Your task to perform on an android device: turn off notifications settings in the gmail app Image 0: 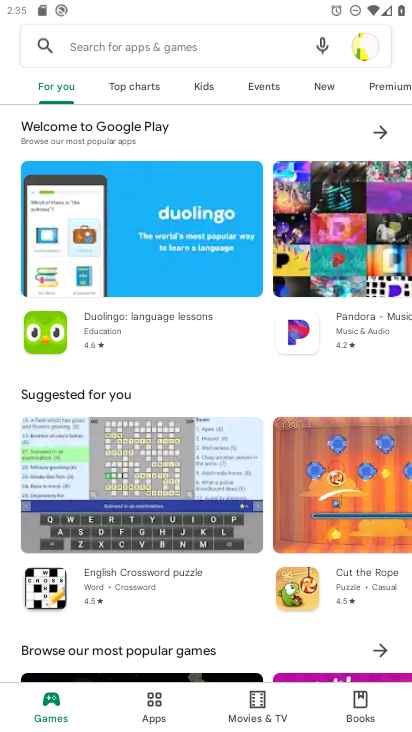
Step 0: press back button
Your task to perform on an android device: turn off notifications settings in the gmail app Image 1: 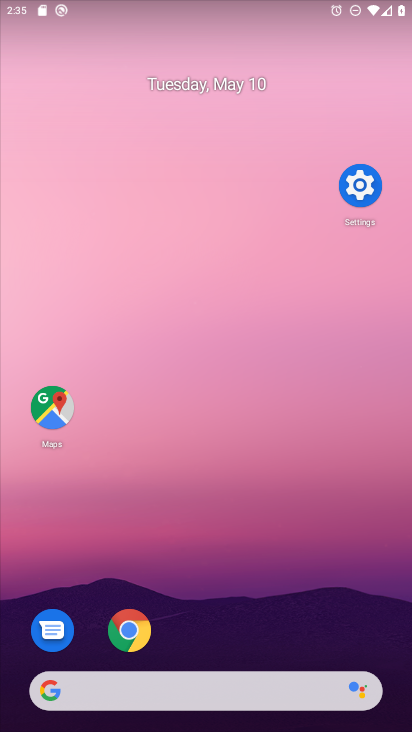
Step 1: click (76, 16)
Your task to perform on an android device: turn off notifications settings in the gmail app Image 2: 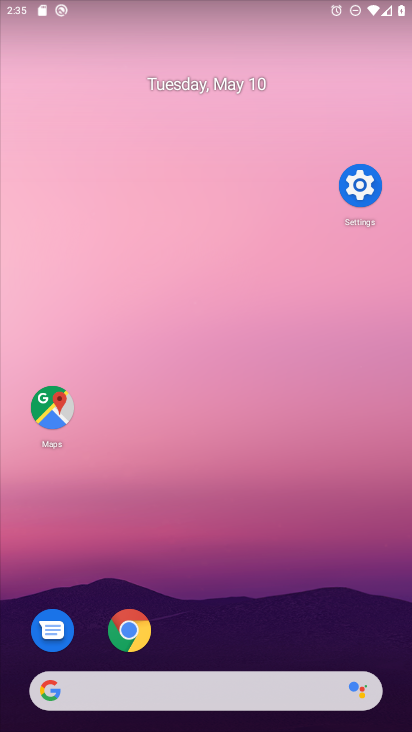
Step 2: drag from (287, 627) to (255, 73)
Your task to perform on an android device: turn off notifications settings in the gmail app Image 3: 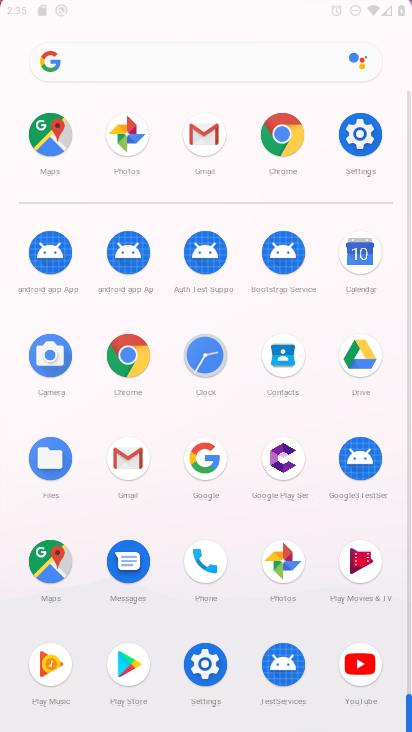
Step 3: drag from (173, 551) to (218, 18)
Your task to perform on an android device: turn off notifications settings in the gmail app Image 4: 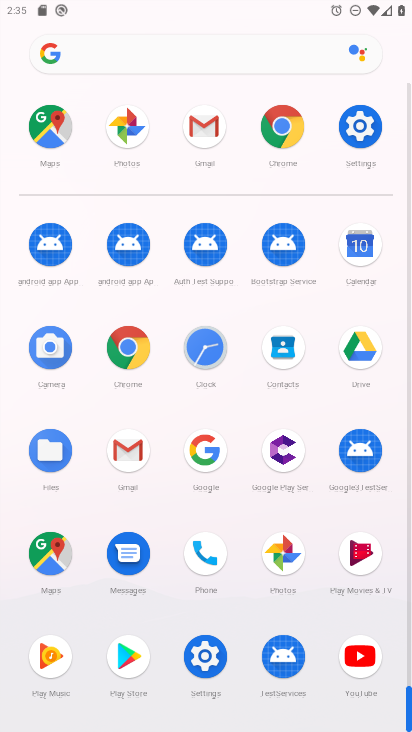
Step 4: click (204, 232)
Your task to perform on an android device: turn off notifications settings in the gmail app Image 5: 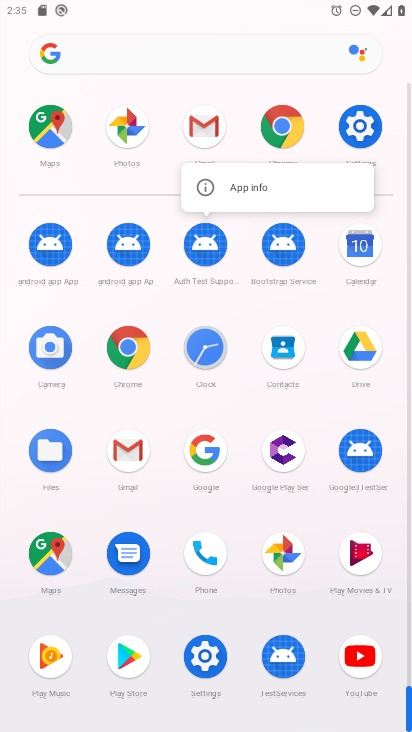
Step 5: click (203, 132)
Your task to perform on an android device: turn off notifications settings in the gmail app Image 6: 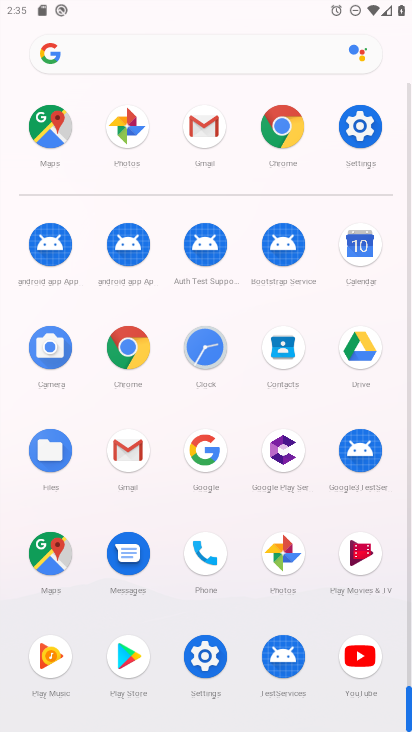
Step 6: click (205, 128)
Your task to perform on an android device: turn off notifications settings in the gmail app Image 7: 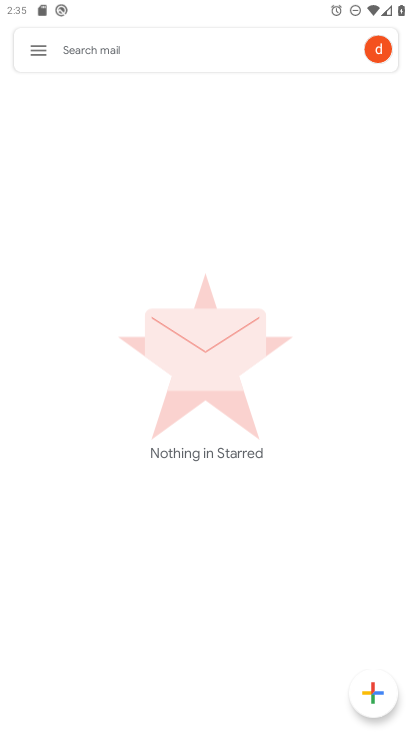
Step 7: click (47, 57)
Your task to perform on an android device: turn off notifications settings in the gmail app Image 8: 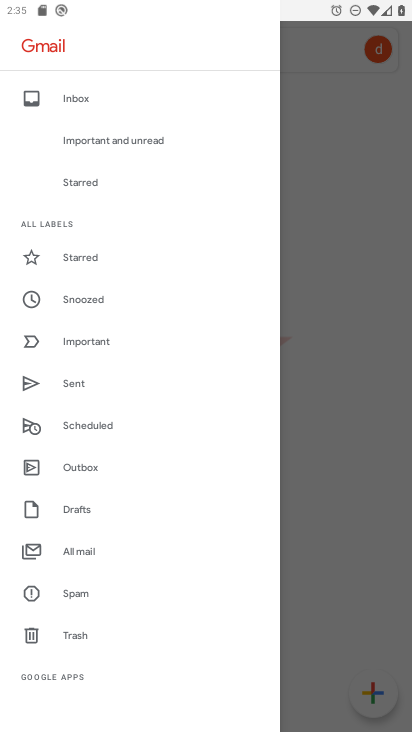
Step 8: drag from (123, 596) to (115, 218)
Your task to perform on an android device: turn off notifications settings in the gmail app Image 9: 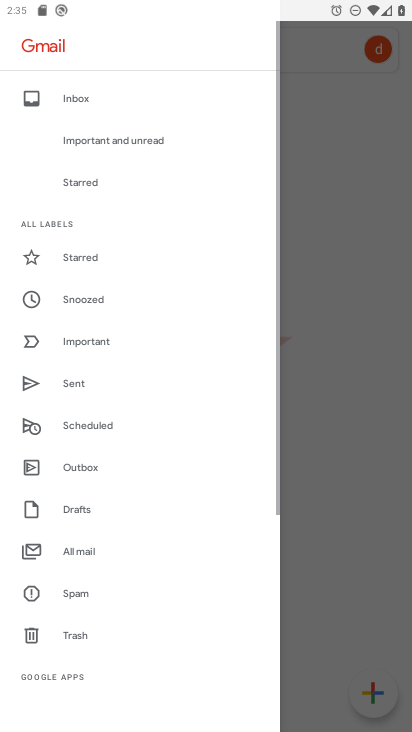
Step 9: drag from (140, 352) to (140, 130)
Your task to perform on an android device: turn off notifications settings in the gmail app Image 10: 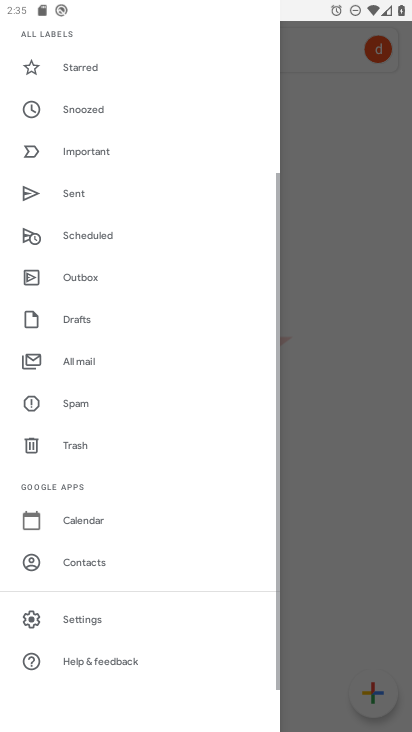
Step 10: drag from (78, 545) to (90, 234)
Your task to perform on an android device: turn off notifications settings in the gmail app Image 11: 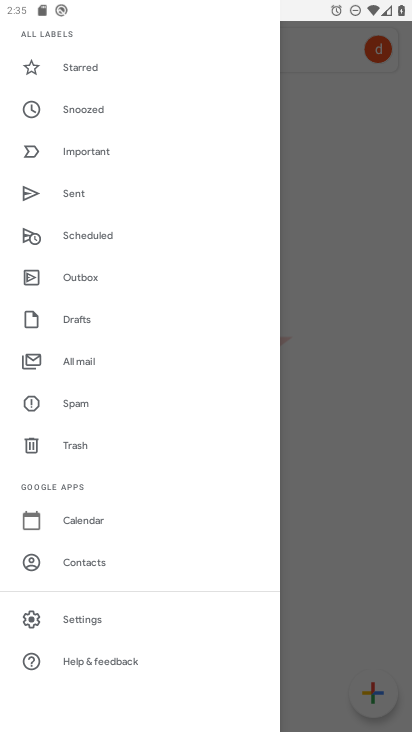
Step 11: click (78, 619)
Your task to perform on an android device: turn off notifications settings in the gmail app Image 12: 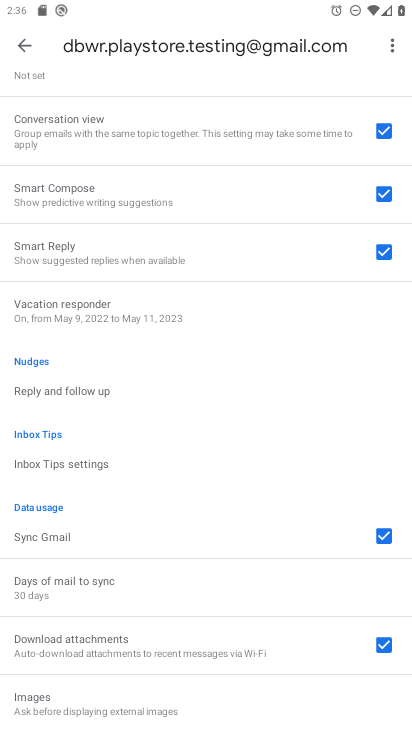
Step 12: drag from (66, 194) to (32, 580)
Your task to perform on an android device: turn off notifications settings in the gmail app Image 13: 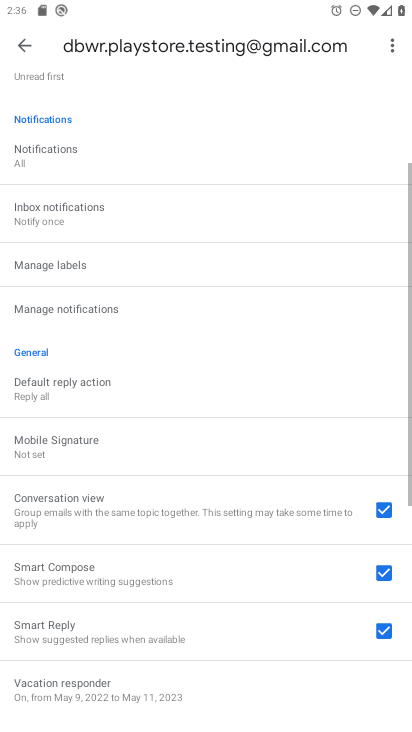
Step 13: click (114, 367)
Your task to perform on an android device: turn off notifications settings in the gmail app Image 14: 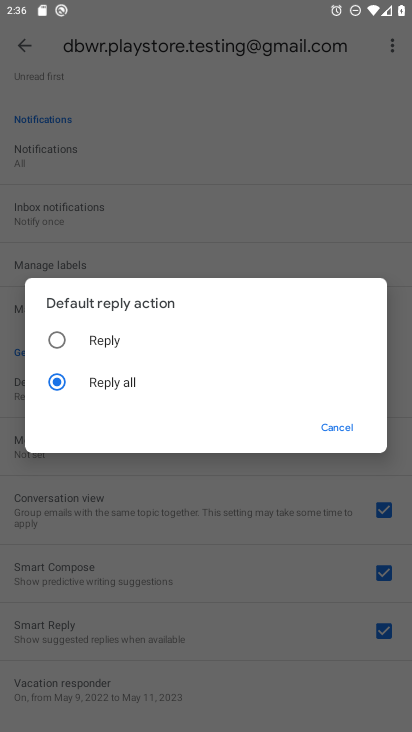
Step 14: click (200, 202)
Your task to perform on an android device: turn off notifications settings in the gmail app Image 15: 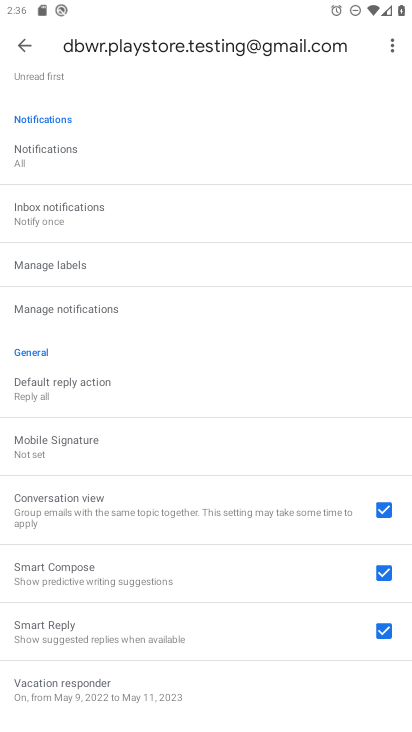
Step 15: click (347, 425)
Your task to perform on an android device: turn off notifications settings in the gmail app Image 16: 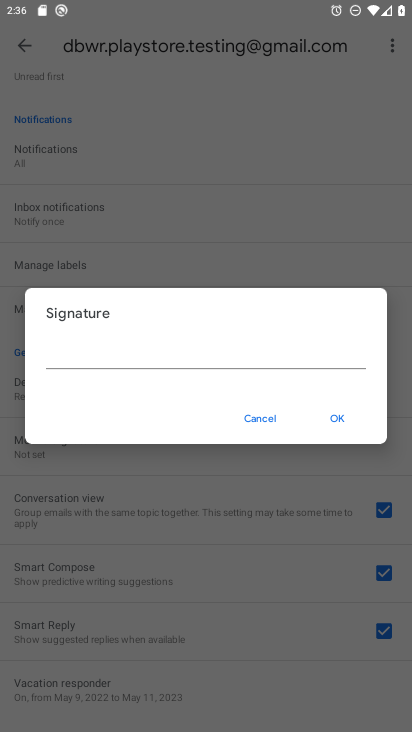
Step 16: click (247, 415)
Your task to perform on an android device: turn off notifications settings in the gmail app Image 17: 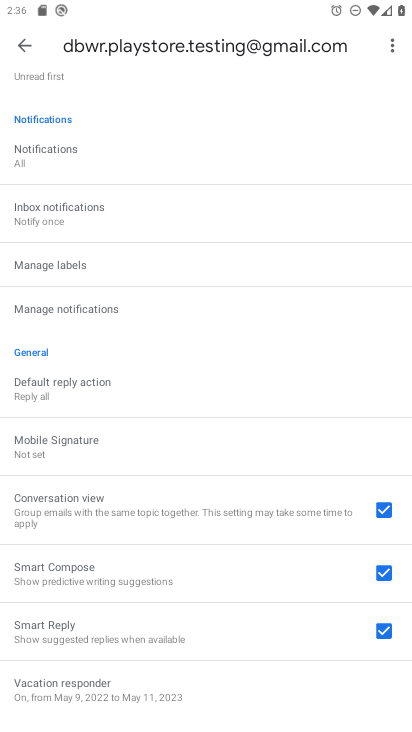
Step 17: click (32, 128)
Your task to perform on an android device: turn off notifications settings in the gmail app Image 18: 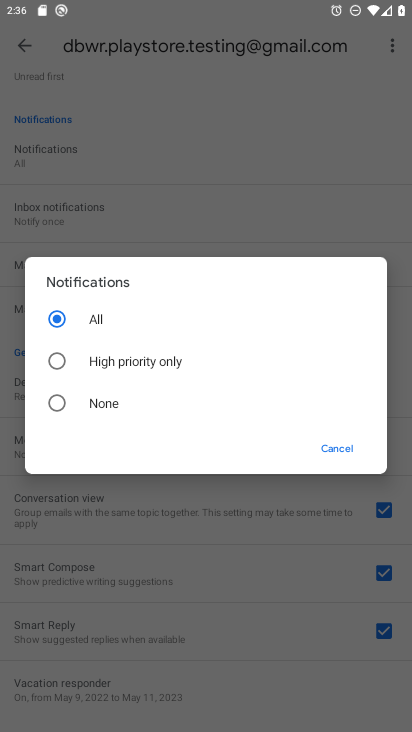
Step 18: click (60, 404)
Your task to perform on an android device: turn off notifications settings in the gmail app Image 19: 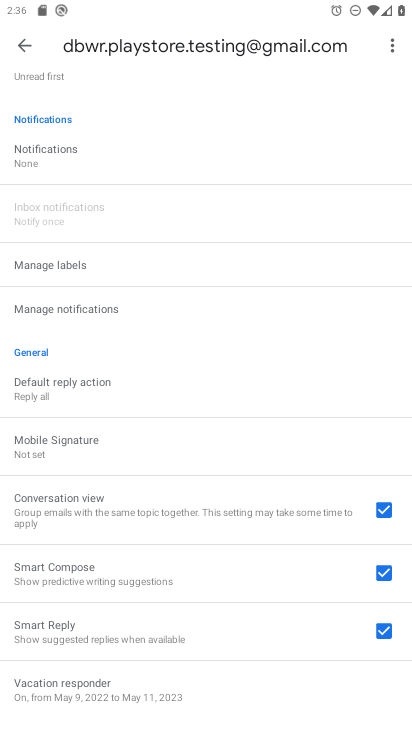
Step 19: task complete